Your task to perform on an android device: install app "Facebook Lite" Image 0: 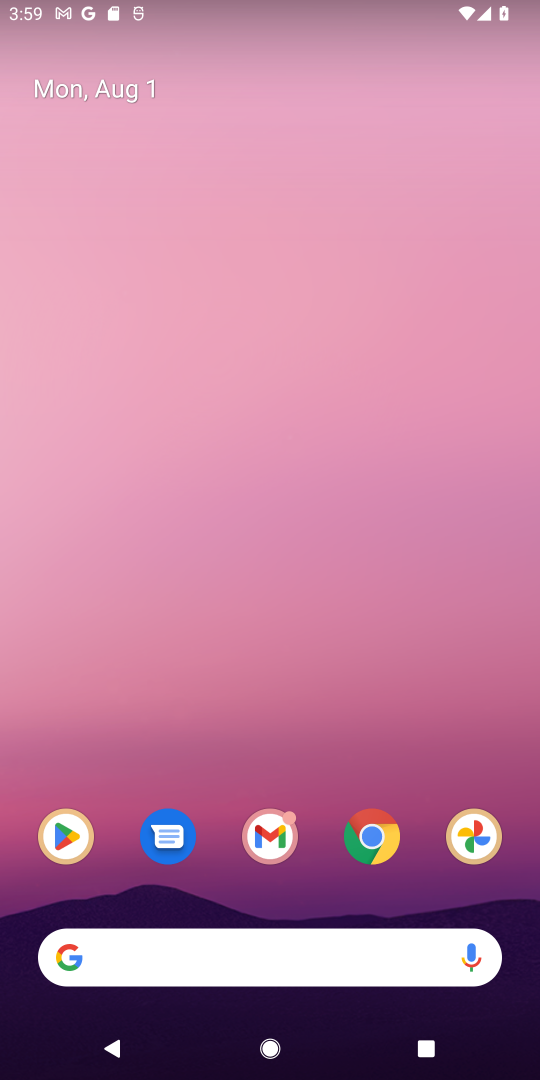
Step 0: drag from (346, 914) to (235, 114)
Your task to perform on an android device: install app "Facebook Lite" Image 1: 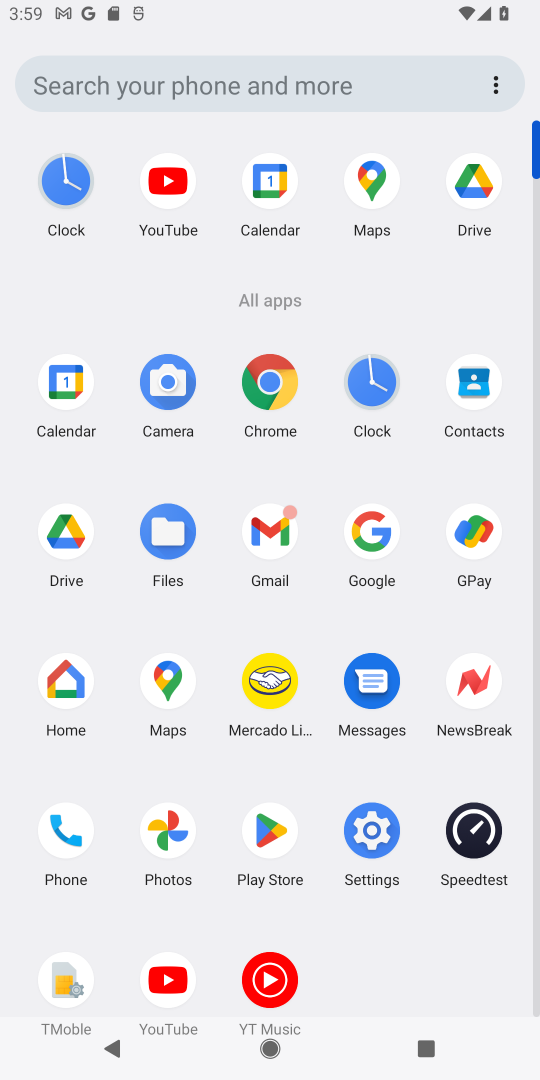
Step 1: click (256, 843)
Your task to perform on an android device: install app "Facebook Lite" Image 2: 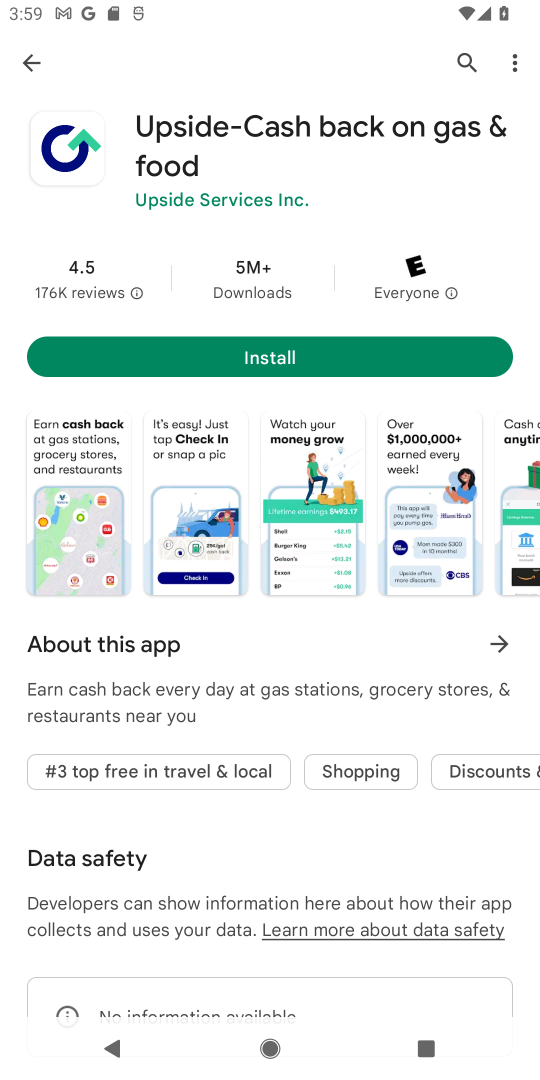
Step 2: click (35, 58)
Your task to perform on an android device: install app "Facebook Lite" Image 3: 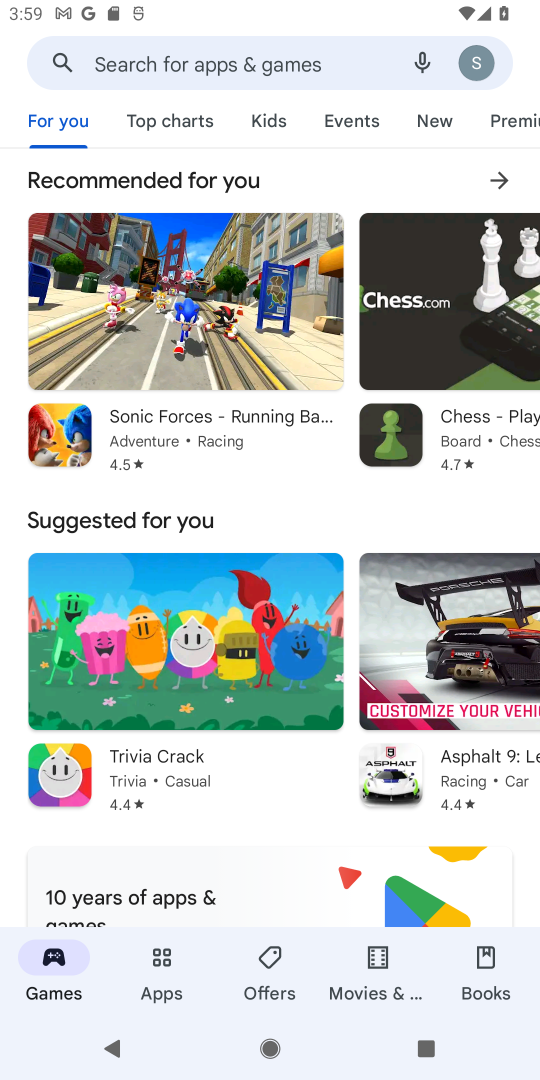
Step 3: click (150, 64)
Your task to perform on an android device: install app "Facebook Lite" Image 4: 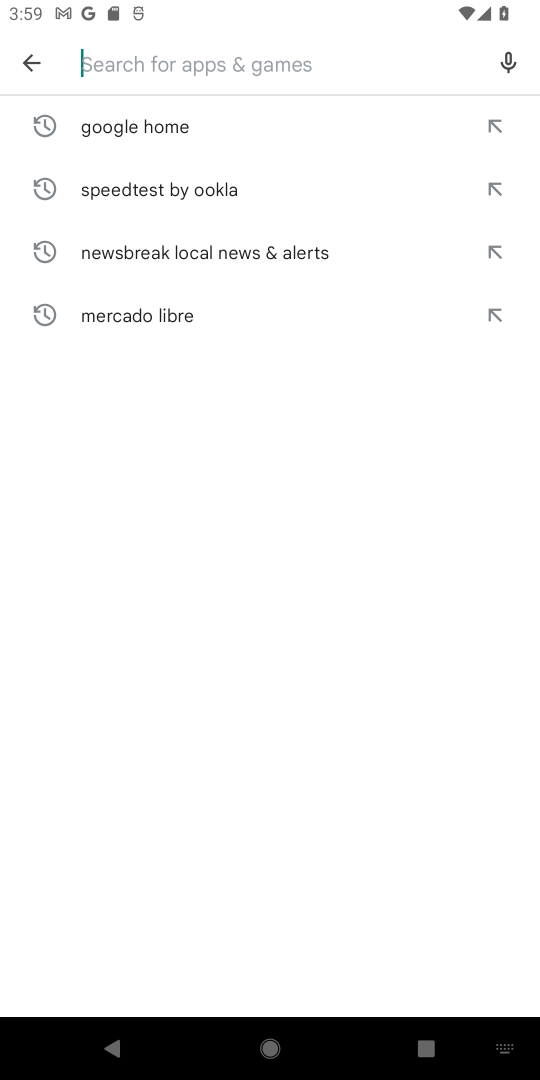
Step 4: type "Facebook Lite"
Your task to perform on an android device: install app "Facebook Lite" Image 5: 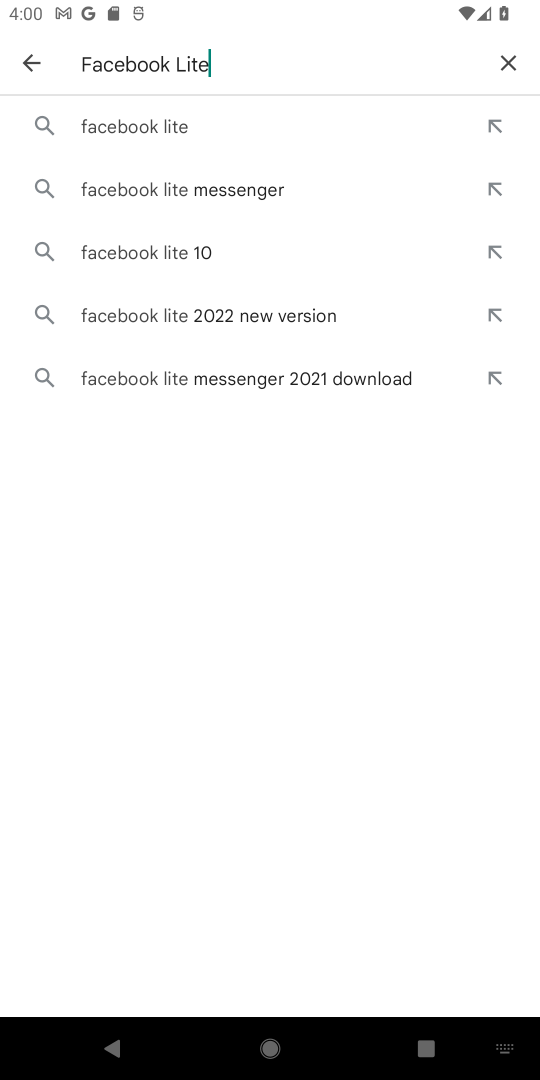
Step 5: click (102, 132)
Your task to perform on an android device: install app "Facebook Lite" Image 6: 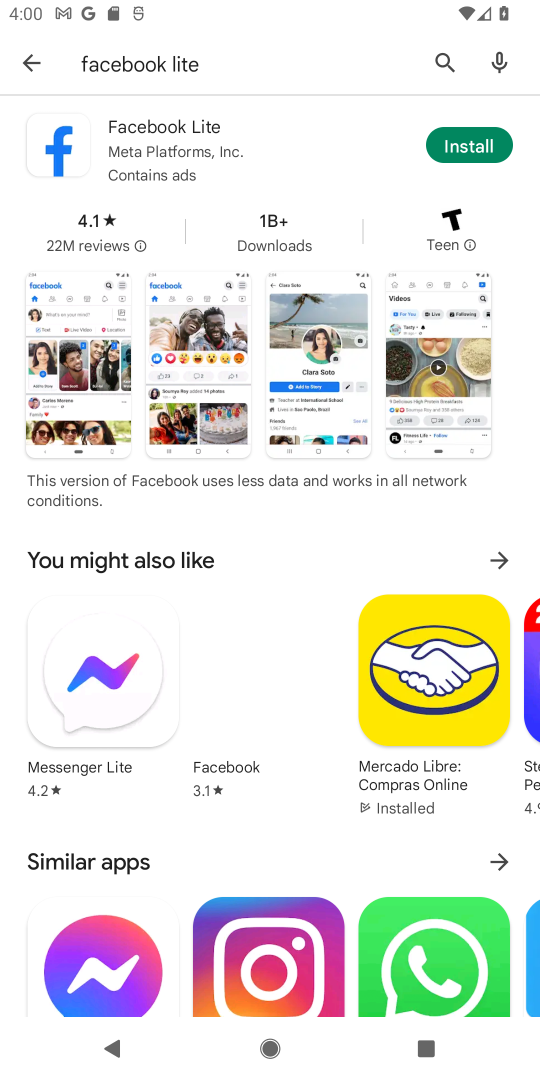
Step 6: click (472, 144)
Your task to perform on an android device: install app "Facebook Lite" Image 7: 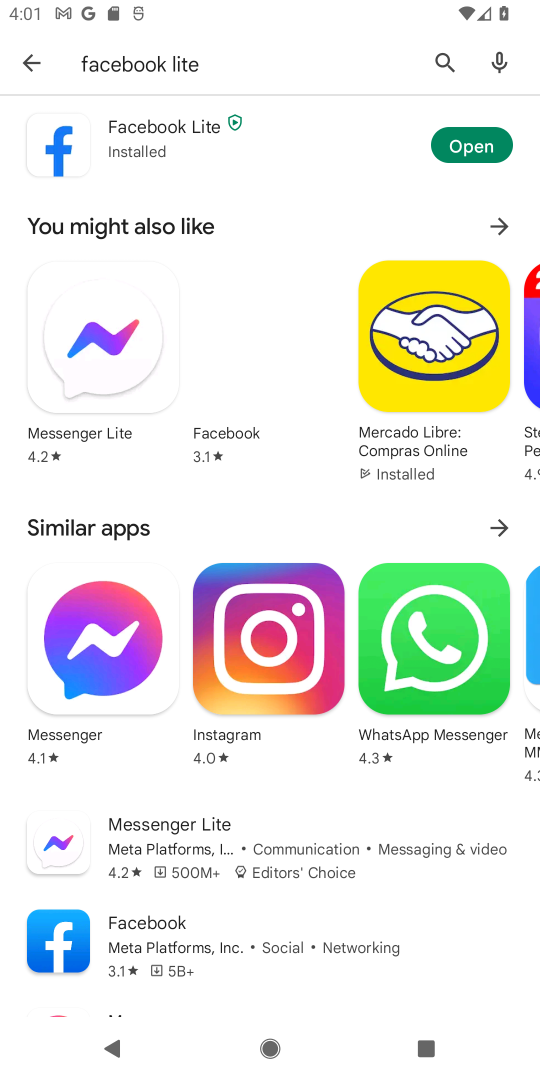
Step 7: click (465, 150)
Your task to perform on an android device: install app "Facebook Lite" Image 8: 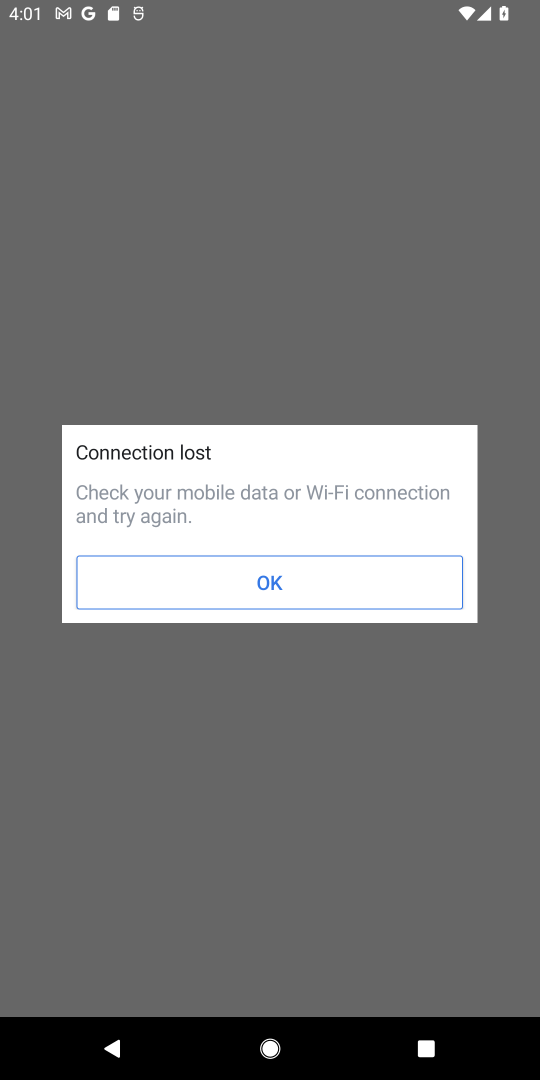
Step 8: task complete